Your task to perform on an android device: show emergency info Image 0: 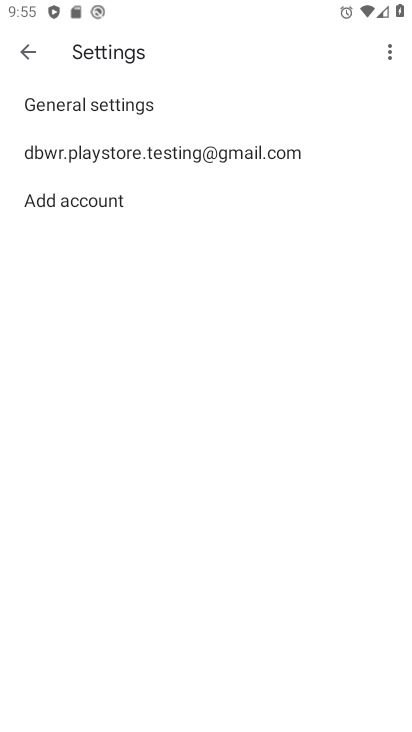
Step 0: press home button
Your task to perform on an android device: show emergency info Image 1: 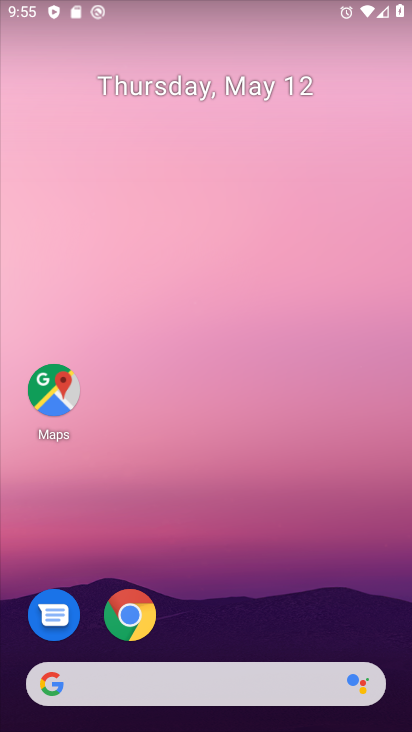
Step 1: drag from (303, 606) to (331, 73)
Your task to perform on an android device: show emergency info Image 2: 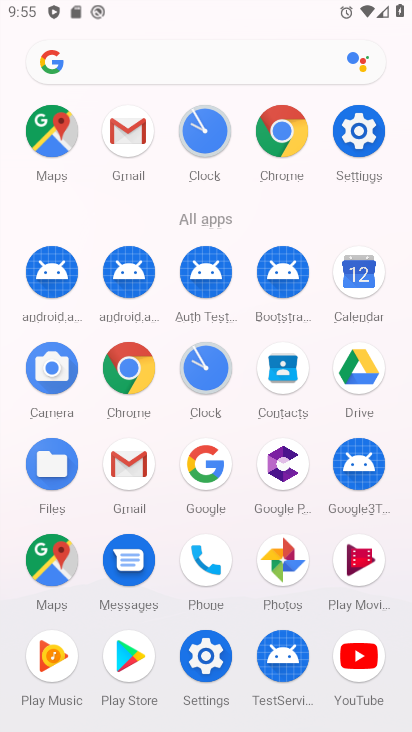
Step 2: click (367, 143)
Your task to perform on an android device: show emergency info Image 3: 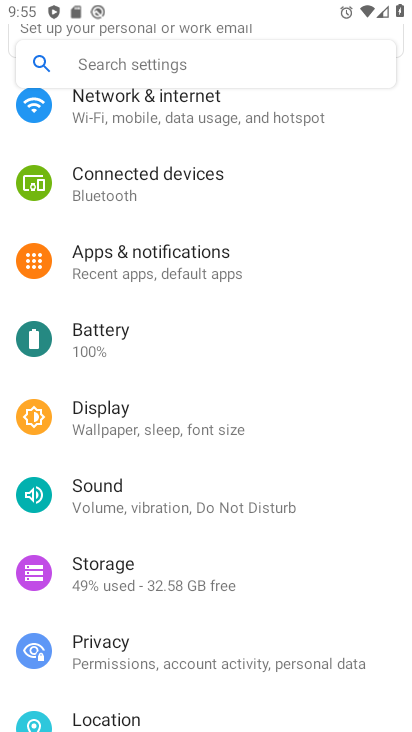
Step 3: drag from (275, 659) to (341, 167)
Your task to perform on an android device: show emergency info Image 4: 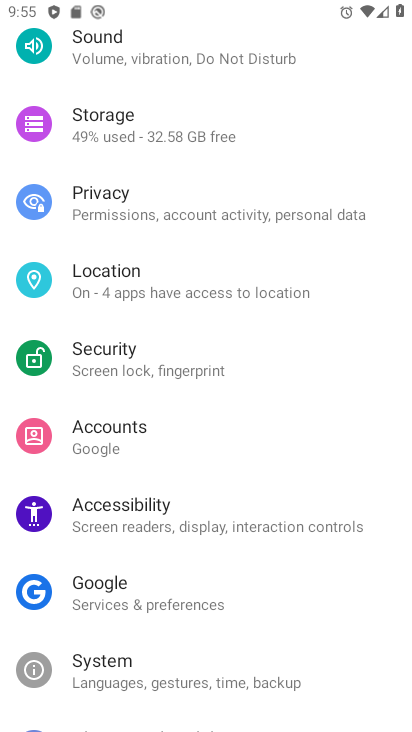
Step 4: drag from (263, 599) to (309, 35)
Your task to perform on an android device: show emergency info Image 5: 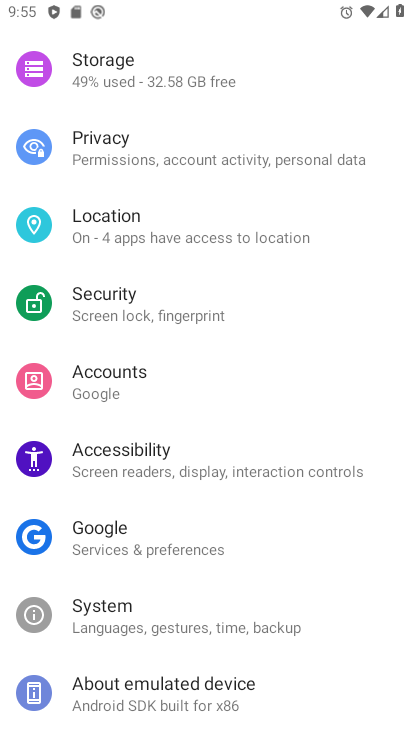
Step 5: click (179, 709)
Your task to perform on an android device: show emergency info Image 6: 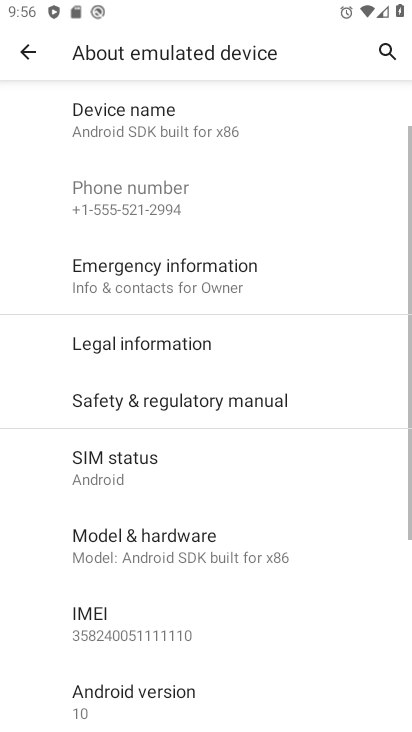
Step 6: click (247, 268)
Your task to perform on an android device: show emergency info Image 7: 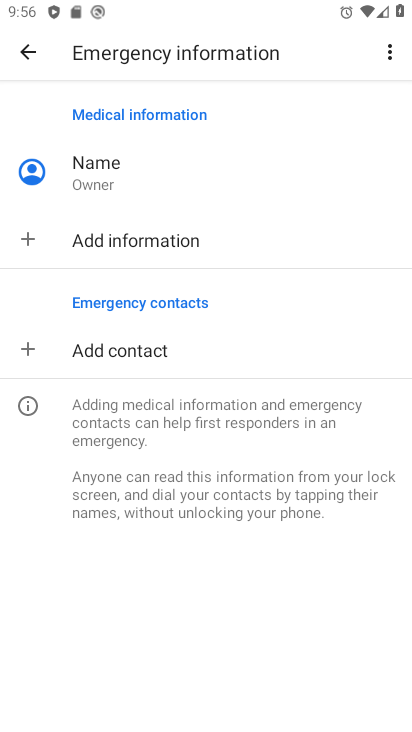
Step 7: task complete